Your task to perform on an android device: Search for pizza restaurants on Maps Image 0: 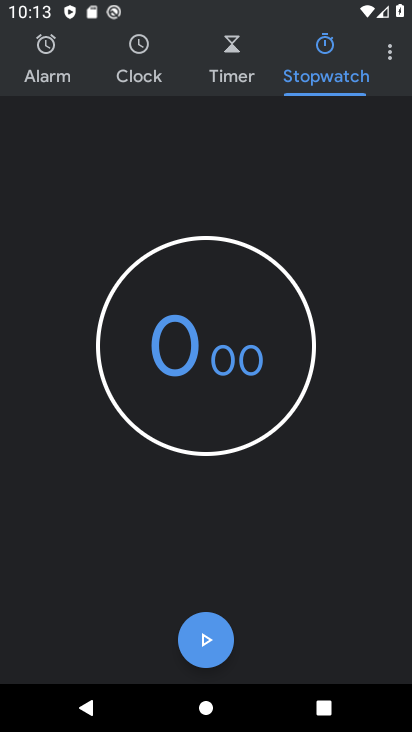
Step 0: press home button
Your task to perform on an android device: Search for pizza restaurants on Maps Image 1: 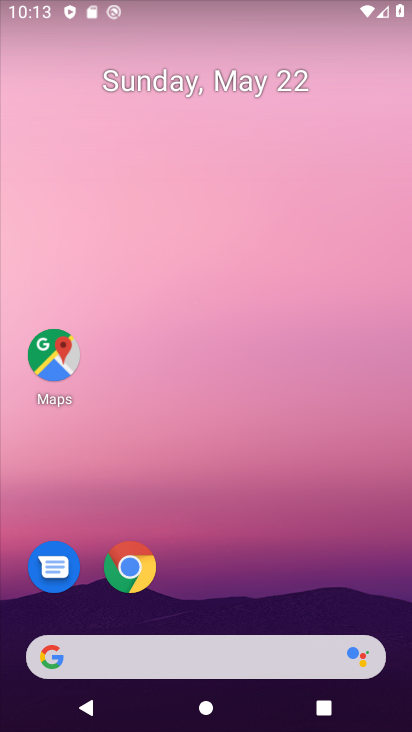
Step 1: click (54, 365)
Your task to perform on an android device: Search for pizza restaurants on Maps Image 2: 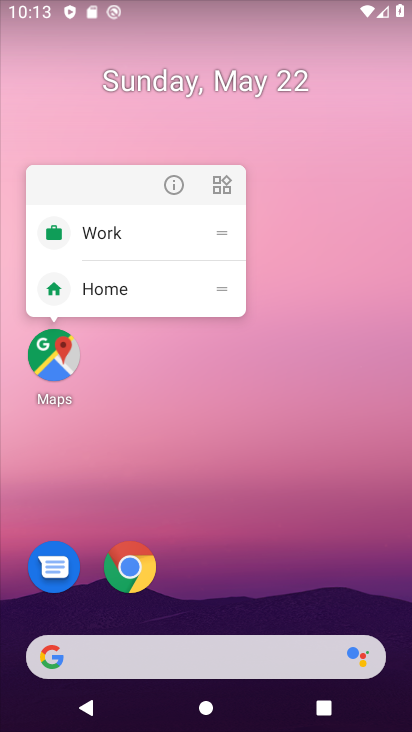
Step 2: click (39, 357)
Your task to perform on an android device: Search for pizza restaurants on Maps Image 3: 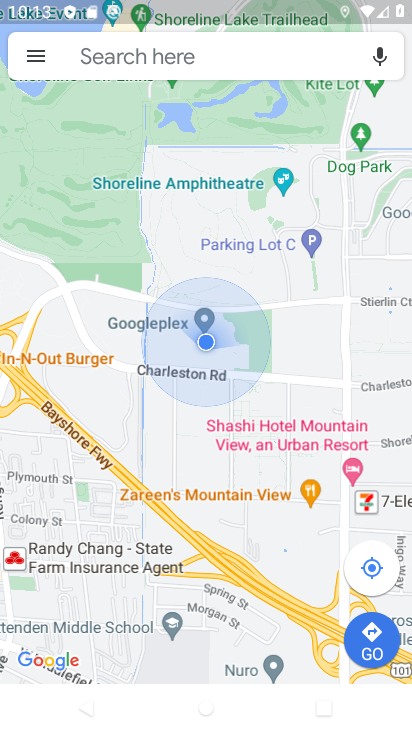
Step 3: click (178, 59)
Your task to perform on an android device: Search for pizza restaurants on Maps Image 4: 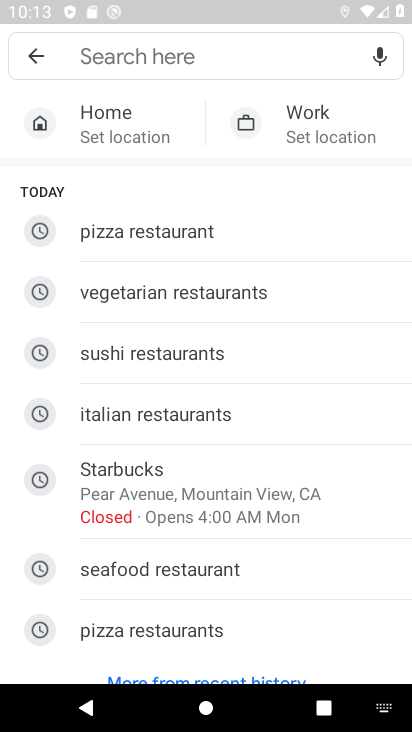
Step 4: click (141, 233)
Your task to perform on an android device: Search for pizza restaurants on Maps Image 5: 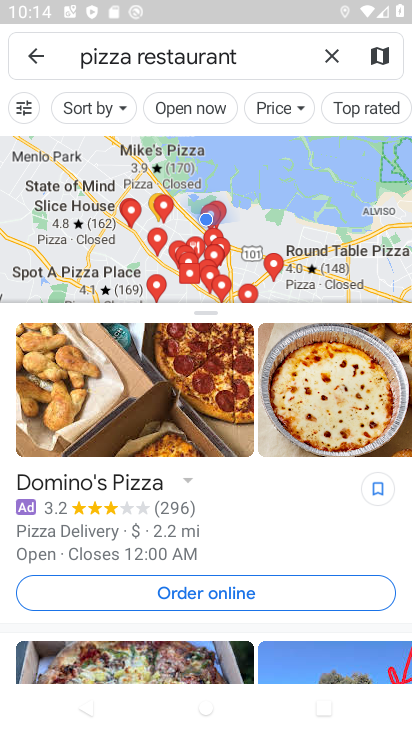
Step 5: task complete